Your task to perform on an android device: Search for Italian restaurants on Maps Image 0: 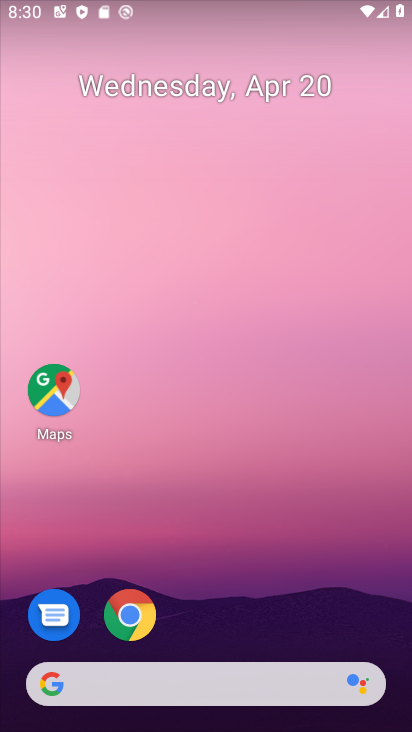
Step 0: click (54, 393)
Your task to perform on an android device: Search for Italian restaurants on Maps Image 1: 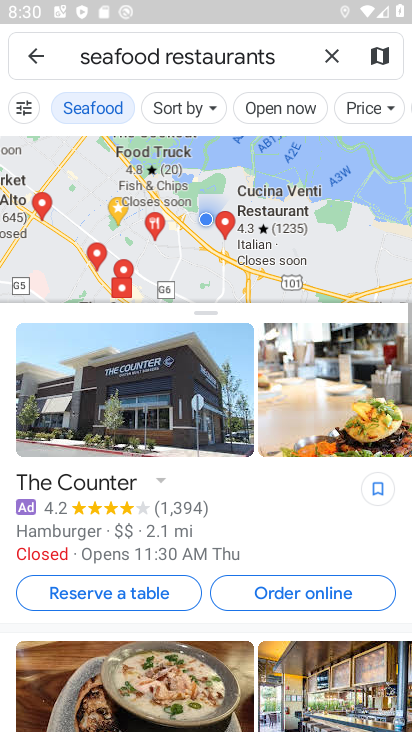
Step 1: click (333, 56)
Your task to perform on an android device: Search for Italian restaurants on Maps Image 2: 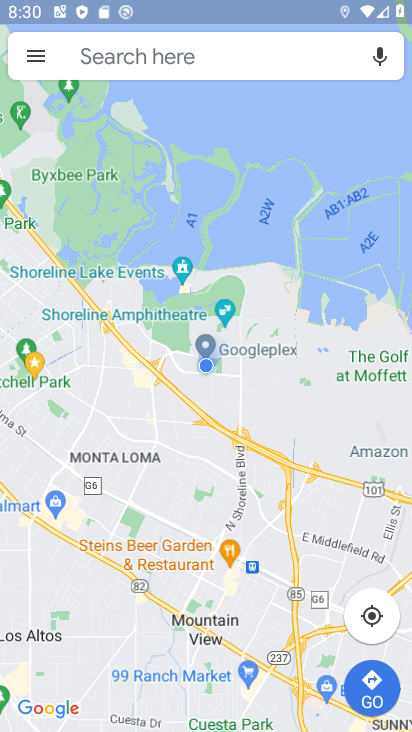
Step 2: click (227, 56)
Your task to perform on an android device: Search for Italian restaurants on Maps Image 3: 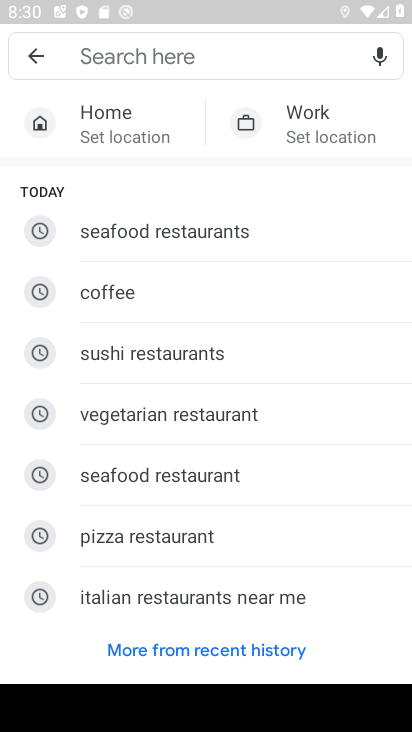
Step 3: type "Italian restaurants"
Your task to perform on an android device: Search for Italian restaurants on Maps Image 4: 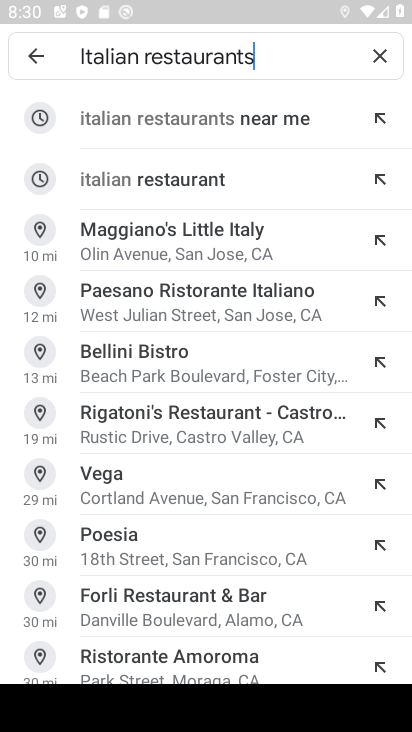
Step 4: click (203, 182)
Your task to perform on an android device: Search for Italian restaurants on Maps Image 5: 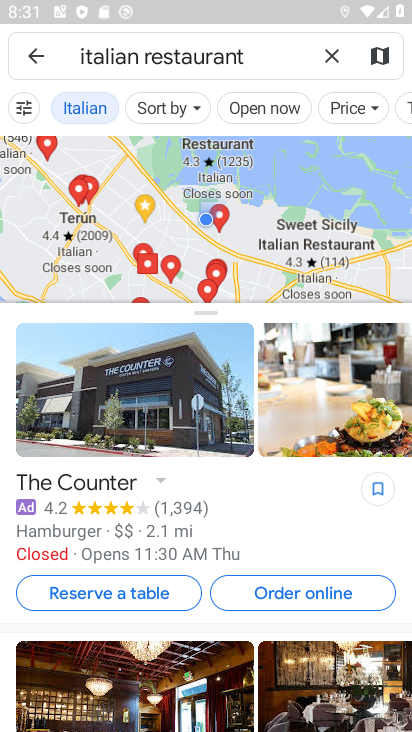
Step 5: task complete